Your task to perform on an android device: Search for sushi restaurants on Maps Image 0: 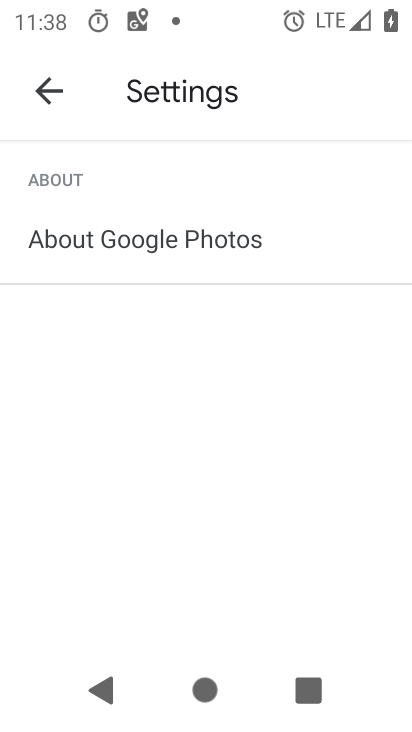
Step 0: press home button
Your task to perform on an android device: Search for sushi restaurants on Maps Image 1: 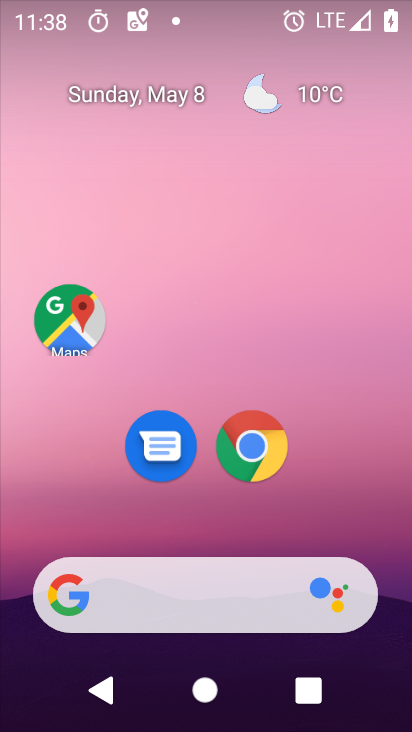
Step 1: click (70, 319)
Your task to perform on an android device: Search for sushi restaurants on Maps Image 2: 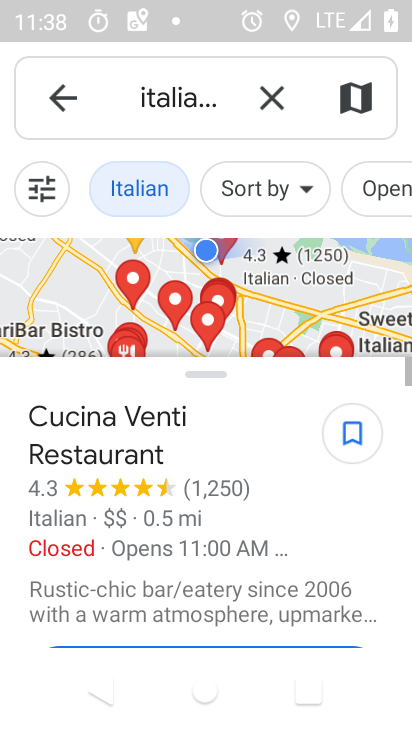
Step 2: click (268, 104)
Your task to perform on an android device: Search for sushi restaurants on Maps Image 3: 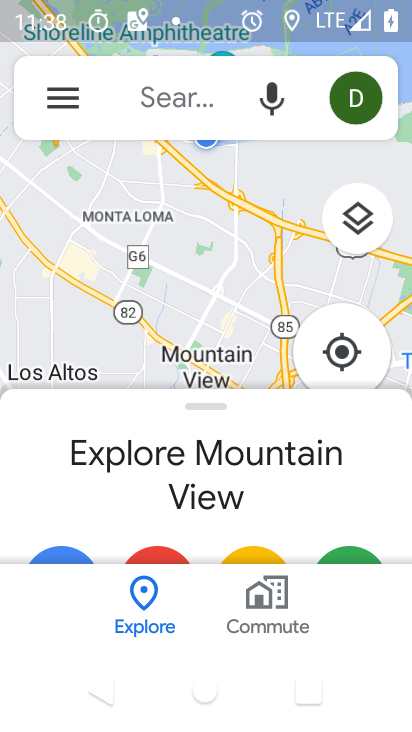
Step 3: click (146, 102)
Your task to perform on an android device: Search for sushi restaurants on Maps Image 4: 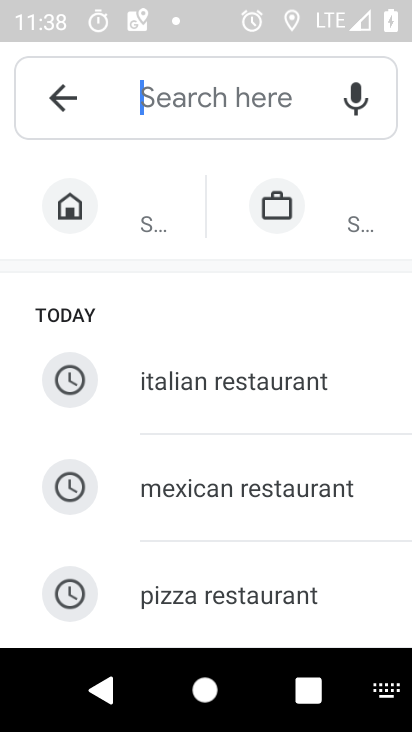
Step 4: type "sushi restaurant"
Your task to perform on an android device: Search for sushi restaurants on Maps Image 5: 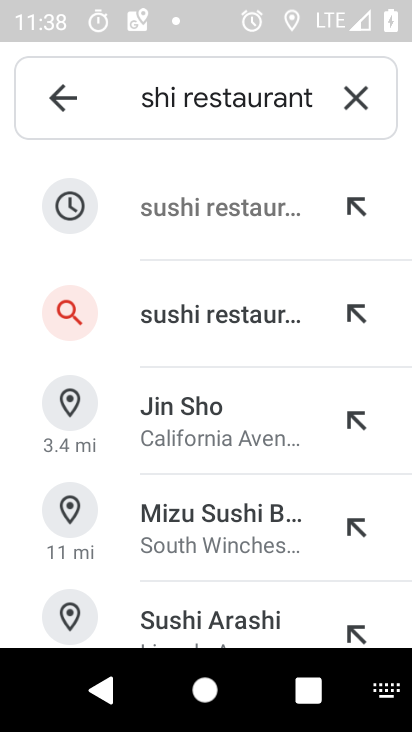
Step 5: click (223, 318)
Your task to perform on an android device: Search for sushi restaurants on Maps Image 6: 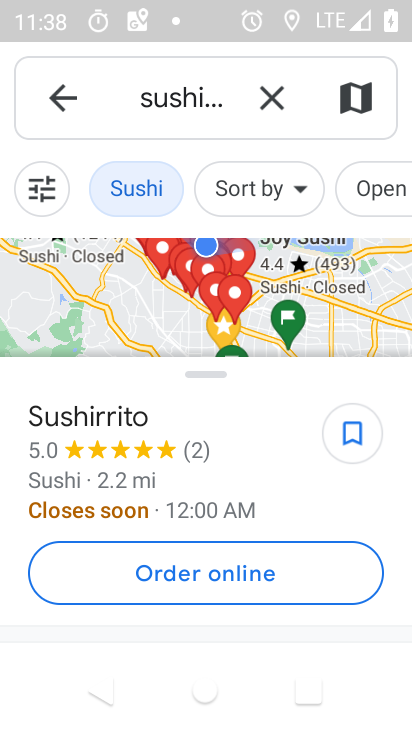
Step 6: task complete